Your task to perform on an android device: Open eBay Image 0: 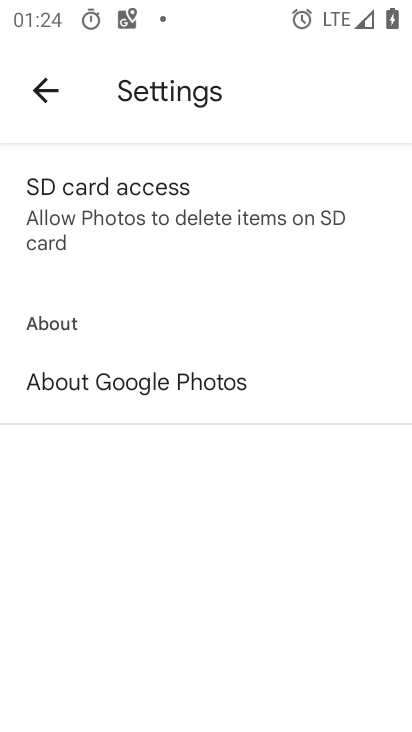
Step 0: press home button
Your task to perform on an android device: Open eBay Image 1: 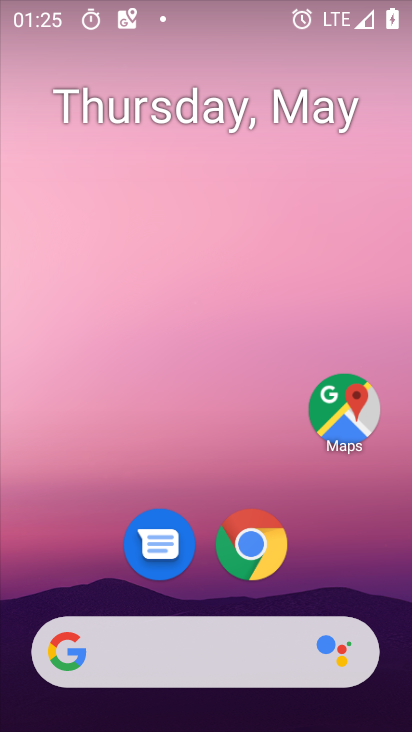
Step 1: drag from (375, 581) to (375, 193)
Your task to perform on an android device: Open eBay Image 2: 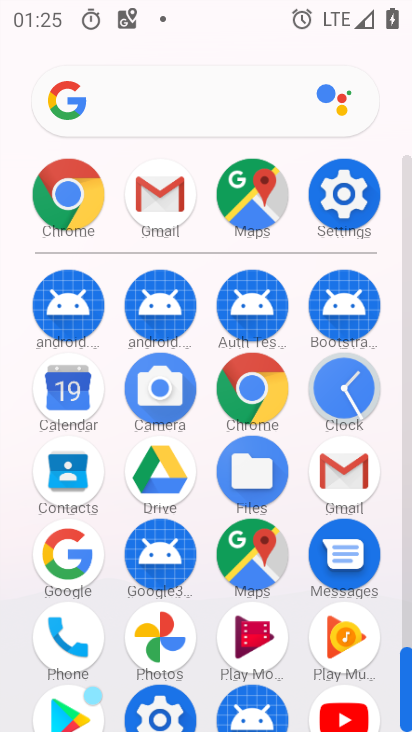
Step 2: drag from (380, 610) to (389, 380)
Your task to perform on an android device: Open eBay Image 3: 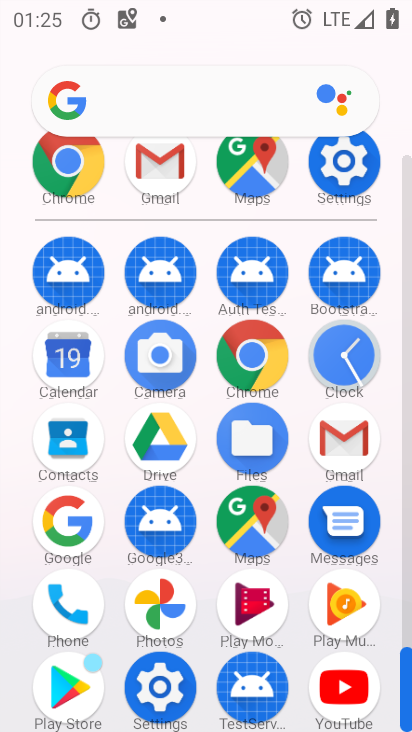
Step 3: click (262, 370)
Your task to perform on an android device: Open eBay Image 4: 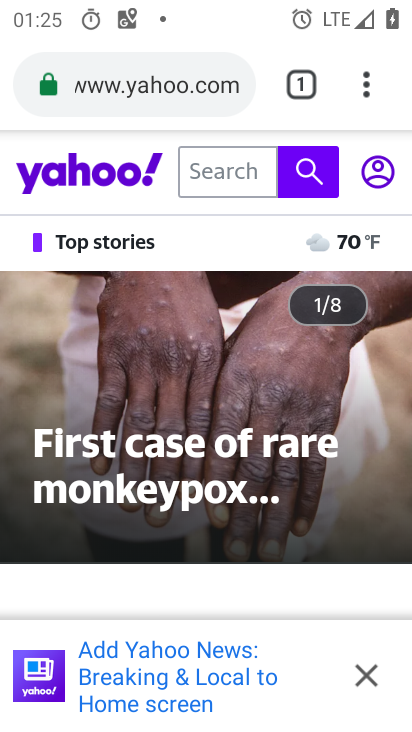
Step 4: press back button
Your task to perform on an android device: Open eBay Image 5: 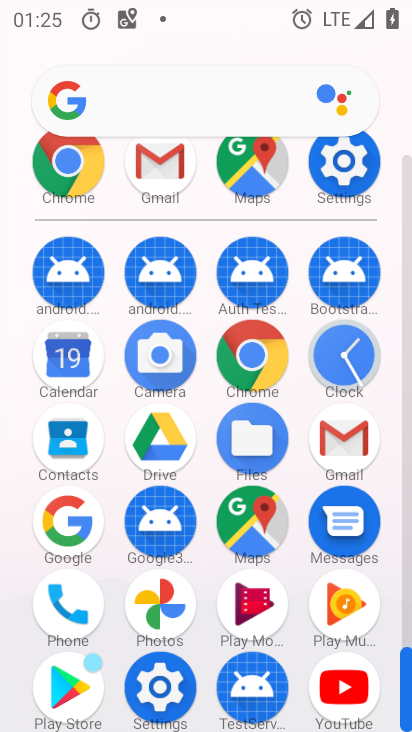
Step 5: click (265, 376)
Your task to perform on an android device: Open eBay Image 6: 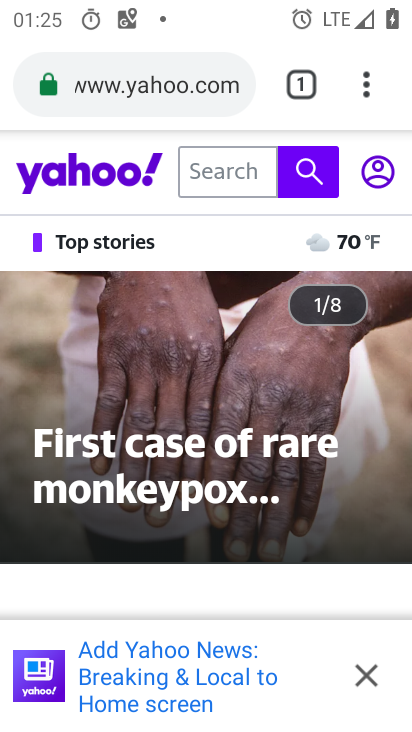
Step 6: click (190, 93)
Your task to perform on an android device: Open eBay Image 7: 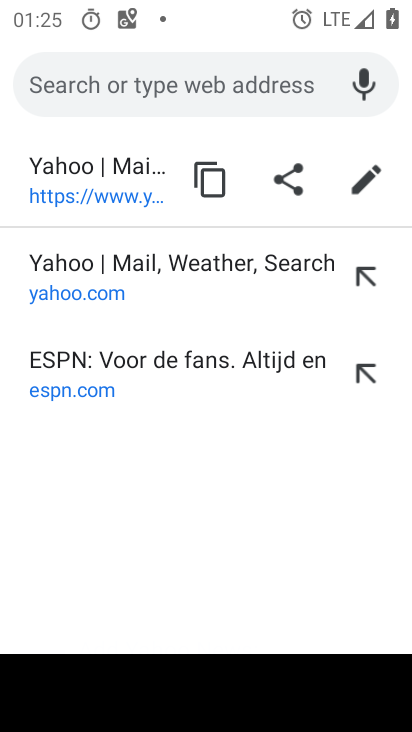
Step 7: type "ebay "
Your task to perform on an android device: Open eBay Image 8: 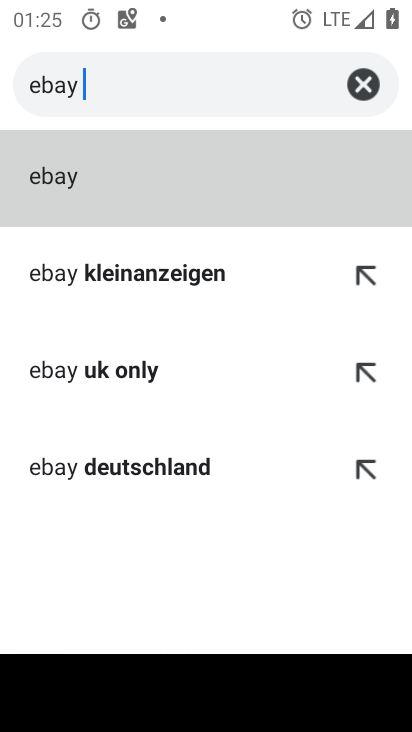
Step 8: click (261, 204)
Your task to perform on an android device: Open eBay Image 9: 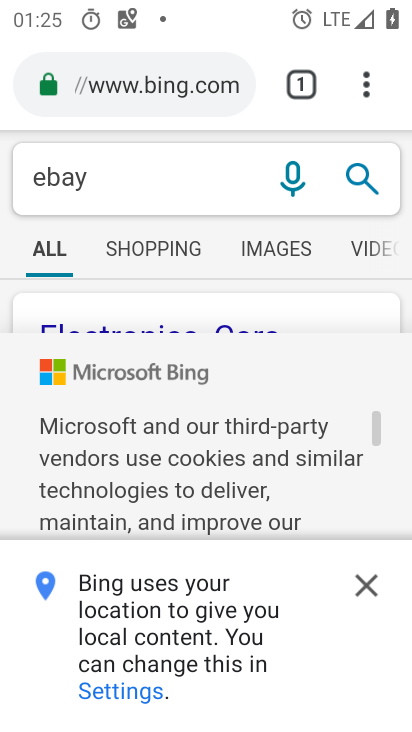
Step 9: task complete